Your task to perform on an android device: Show me the alarms in the clock app Image 0: 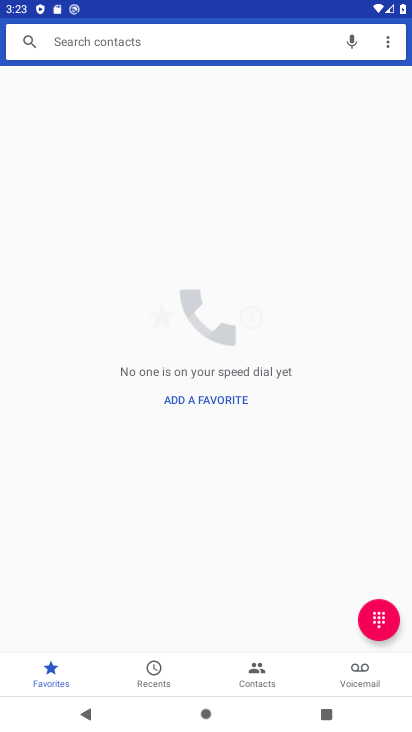
Step 0: press home button
Your task to perform on an android device: Show me the alarms in the clock app Image 1: 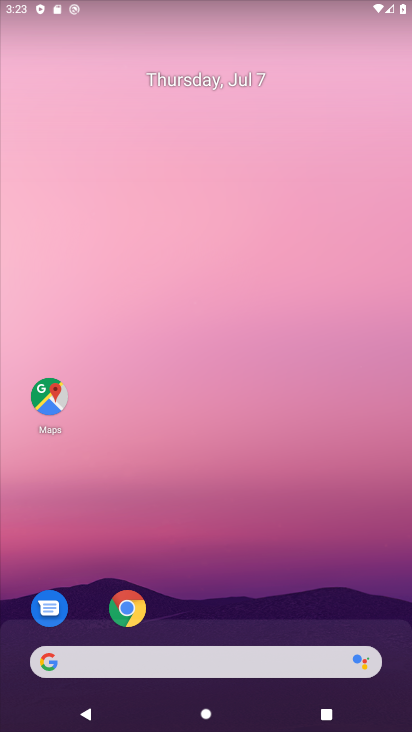
Step 1: drag from (218, 615) to (215, 76)
Your task to perform on an android device: Show me the alarms in the clock app Image 2: 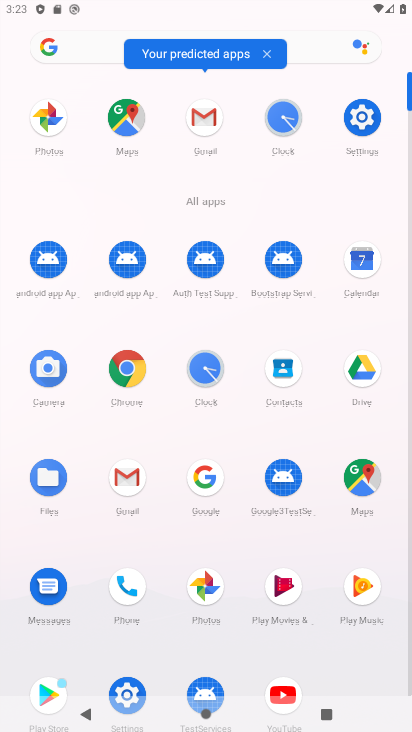
Step 2: click (275, 136)
Your task to perform on an android device: Show me the alarms in the clock app Image 3: 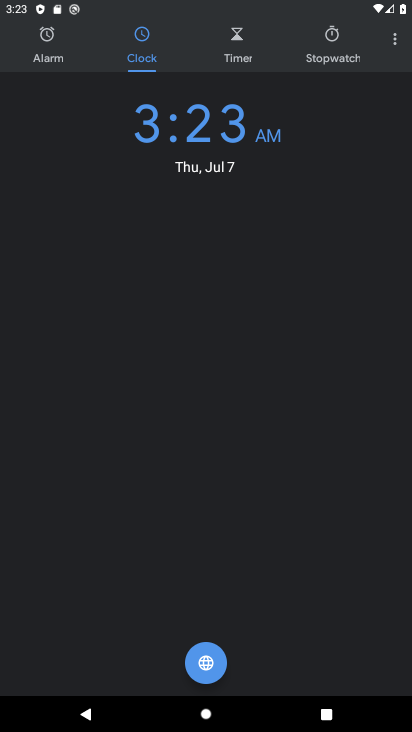
Step 3: click (45, 34)
Your task to perform on an android device: Show me the alarms in the clock app Image 4: 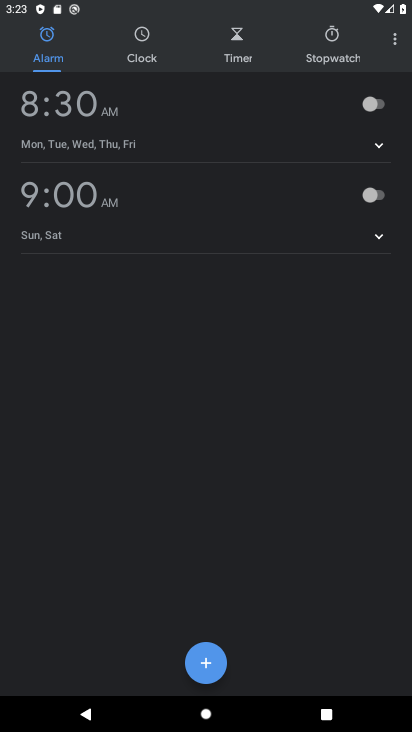
Step 4: task complete